Your task to perform on an android device: Go to Maps Image 0: 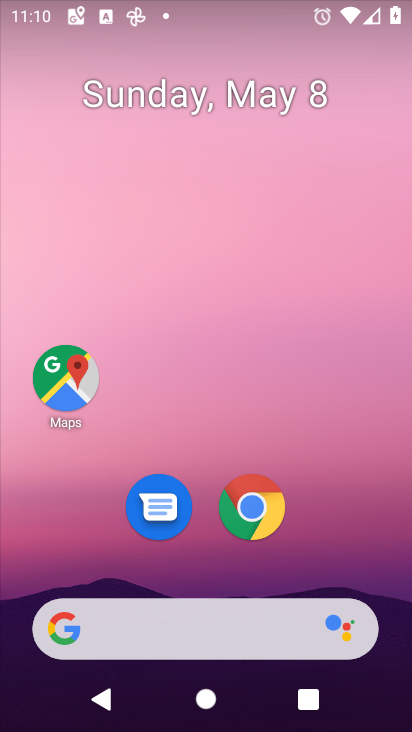
Step 0: click (76, 383)
Your task to perform on an android device: Go to Maps Image 1: 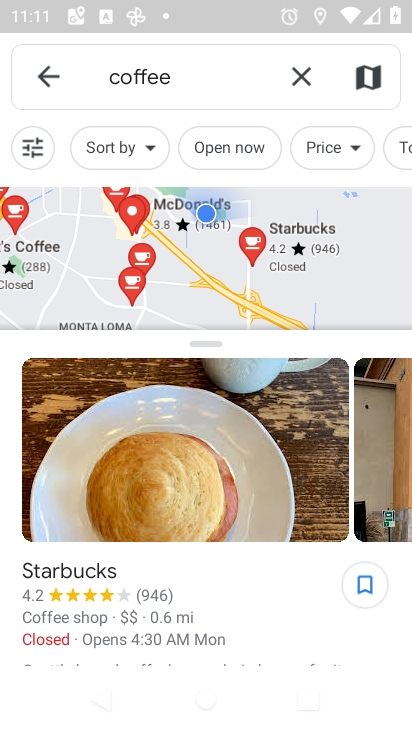
Step 1: task complete